Your task to perform on an android device: What's the weather today? Image 0: 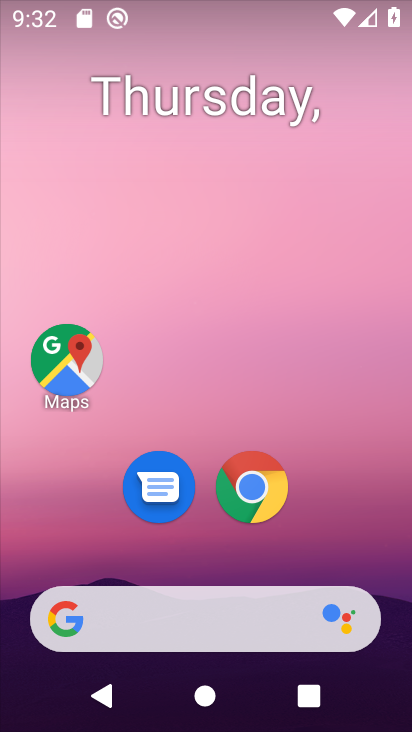
Step 0: click (208, 600)
Your task to perform on an android device: What's the weather today? Image 1: 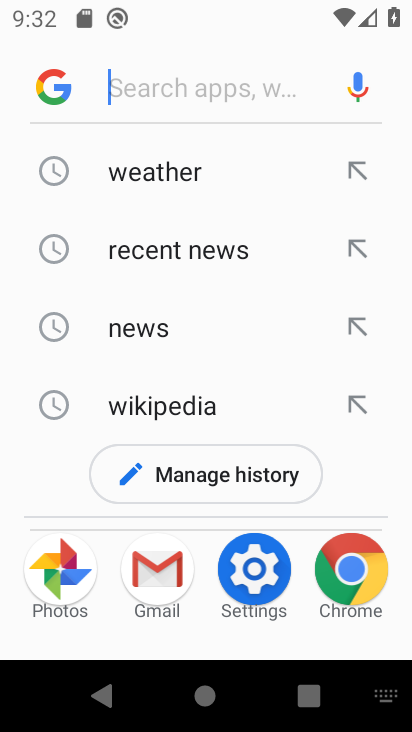
Step 1: click (172, 164)
Your task to perform on an android device: What's the weather today? Image 2: 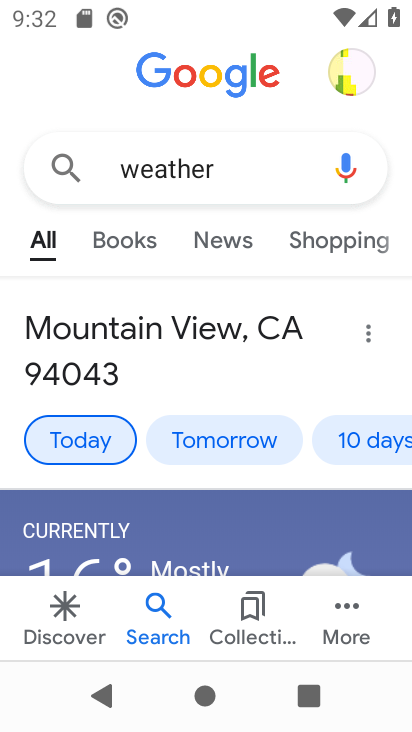
Step 2: task complete